Your task to perform on an android device: turn vacation reply on in the gmail app Image 0: 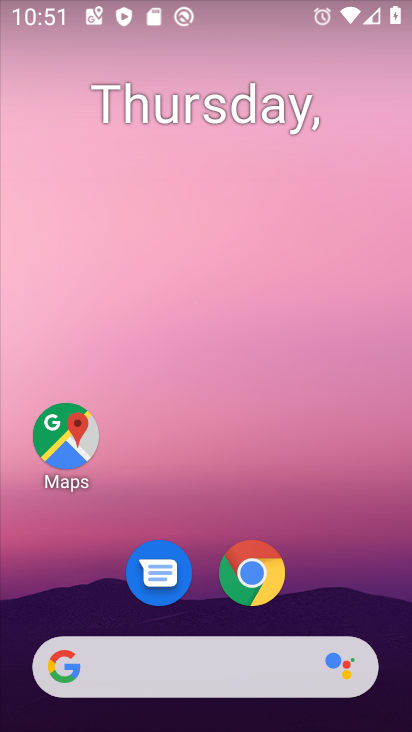
Step 0: drag from (325, 544) to (174, 132)
Your task to perform on an android device: turn vacation reply on in the gmail app Image 1: 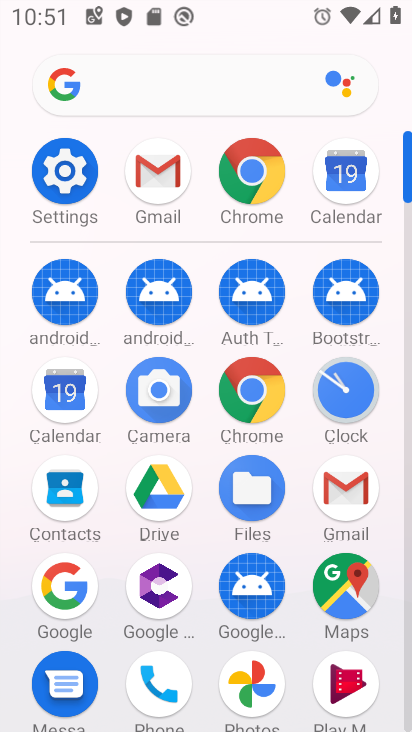
Step 1: click (151, 179)
Your task to perform on an android device: turn vacation reply on in the gmail app Image 2: 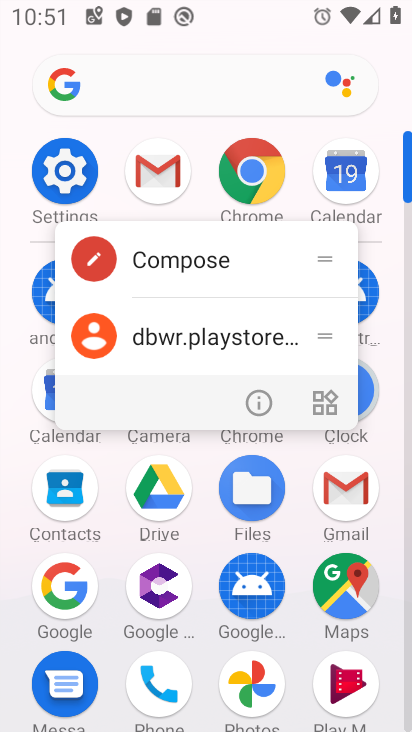
Step 2: click (151, 179)
Your task to perform on an android device: turn vacation reply on in the gmail app Image 3: 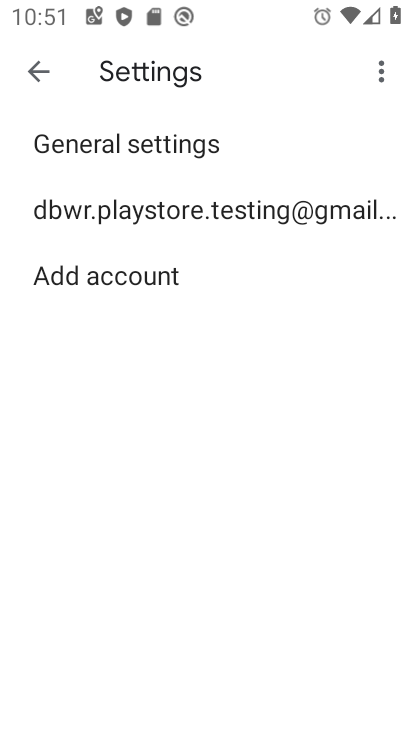
Step 3: click (138, 193)
Your task to perform on an android device: turn vacation reply on in the gmail app Image 4: 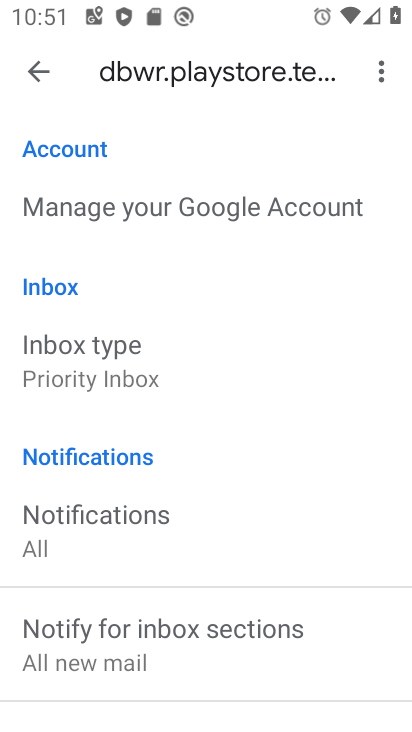
Step 4: drag from (234, 537) to (226, 231)
Your task to perform on an android device: turn vacation reply on in the gmail app Image 5: 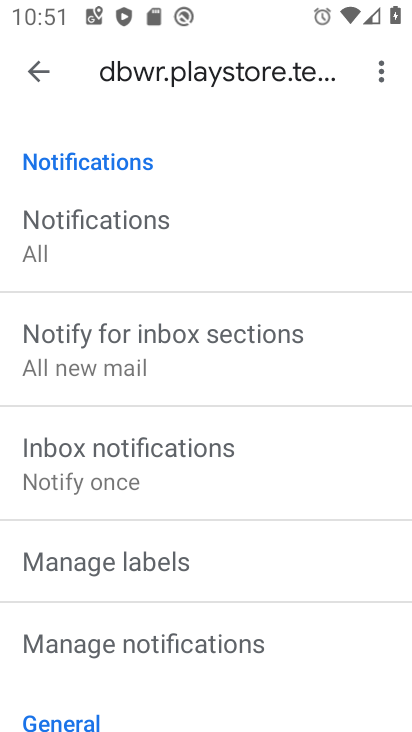
Step 5: drag from (176, 298) to (178, 690)
Your task to perform on an android device: turn vacation reply on in the gmail app Image 6: 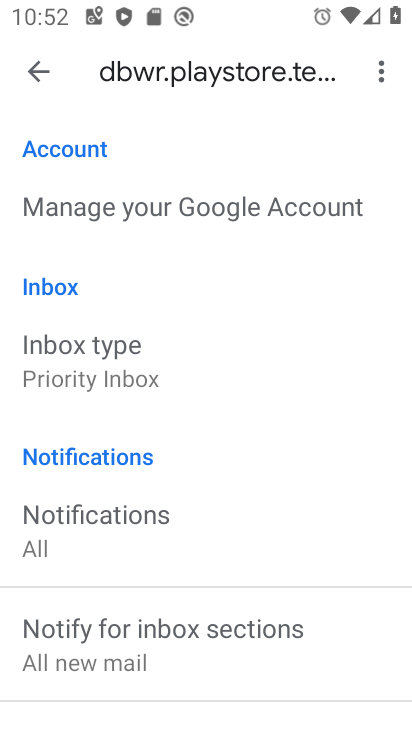
Step 6: drag from (214, 540) to (194, 153)
Your task to perform on an android device: turn vacation reply on in the gmail app Image 7: 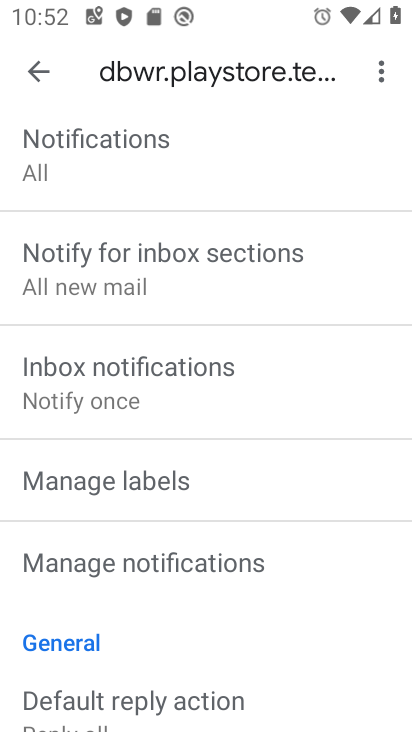
Step 7: drag from (284, 587) to (274, 165)
Your task to perform on an android device: turn vacation reply on in the gmail app Image 8: 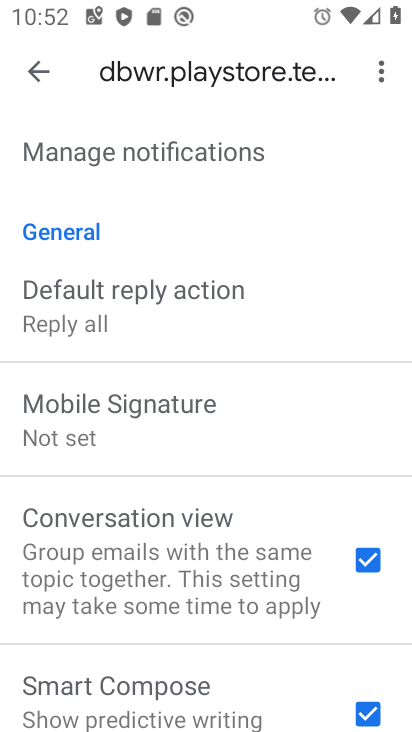
Step 8: drag from (154, 502) to (234, 133)
Your task to perform on an android device: turn vacation reply on in the gmail app Image 9: 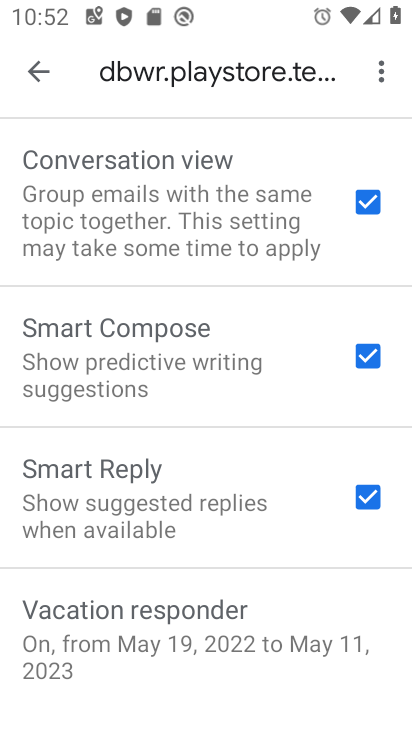
Step 9: click (176, 604)
Your task to perform on an android device: turn vacation reply on in the gmail app Image 10: 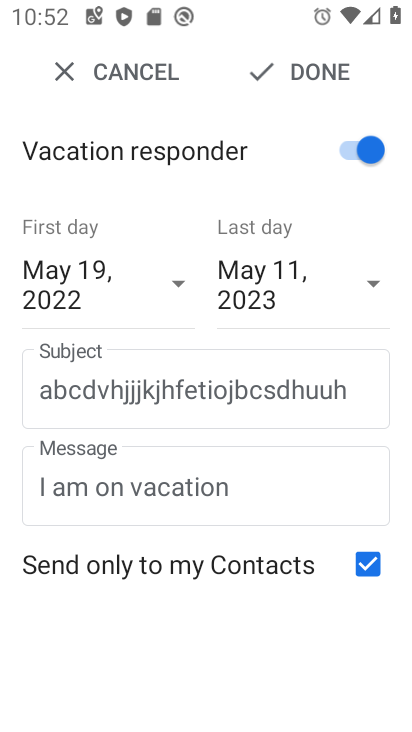
Step 10: task complete